Your task to perform on an android device: Open Wikipedia Image 0: 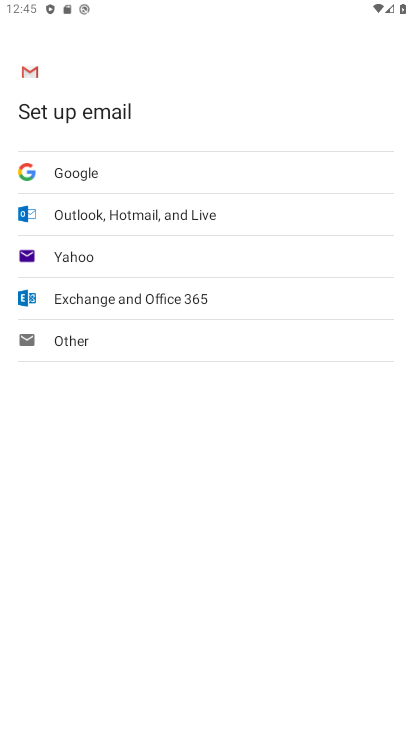
Step 0: press home button
Your task to perform on an android device: Open Wikipedia Image 1: 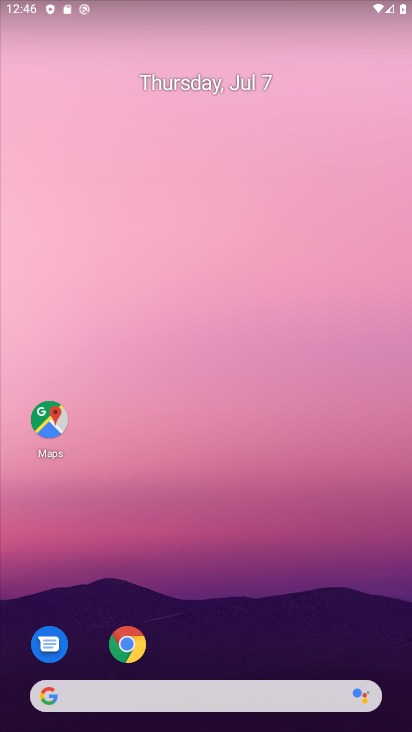
Step 1: drag from (241, 622) to (207, 185)
Your task to perform on an android device: Open Wikipedia Image 2: 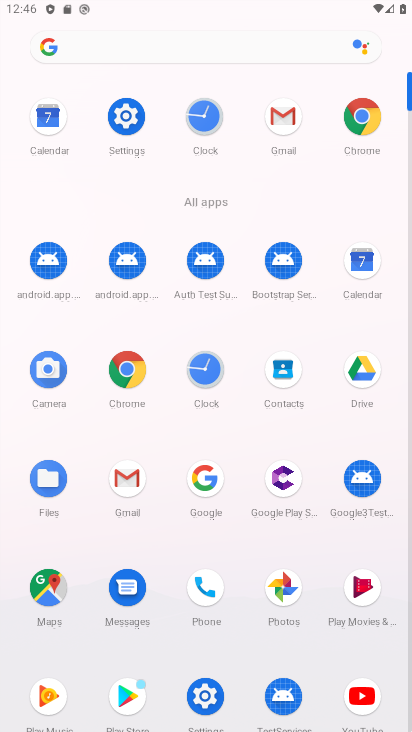
Step 2: click (360, 118)
Your task to perform on an android device: Open Wikipedia Image 3: 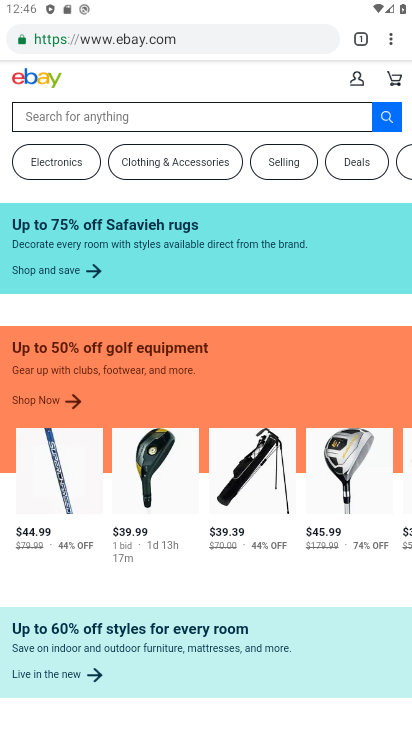
Step 3: click (389, 34)
Your task to perform on an android device: Open Wikipedia Image 4: 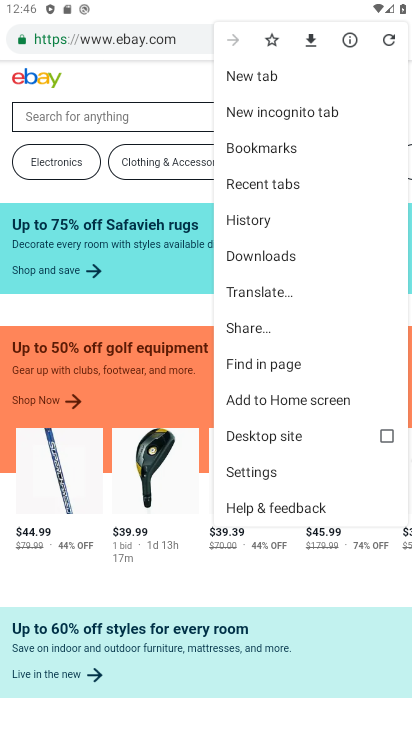
Step 4: click (276, 79)
Your task to perform on an android device: Open Wikipedia Image 5: 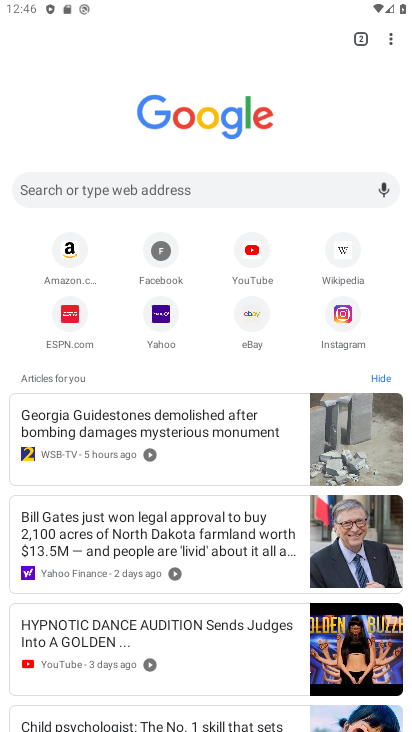
Step 5: click (341, 252)
Your task to perform on an android device: Open Wikipedia Image 6: 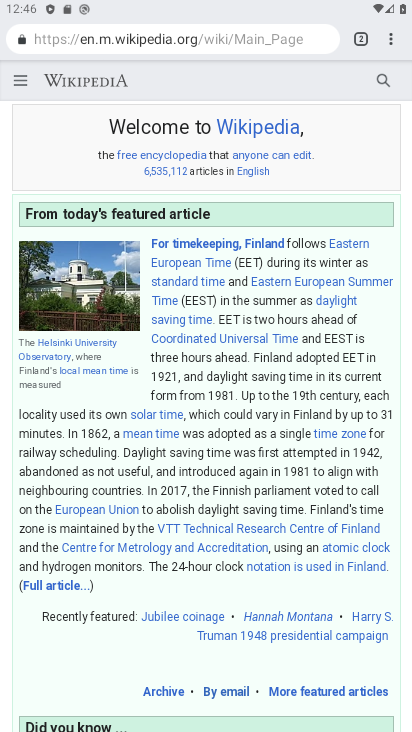
Step 6: task complete